Your task to perform on an android device: open app "Firefox Browser" Image 0: 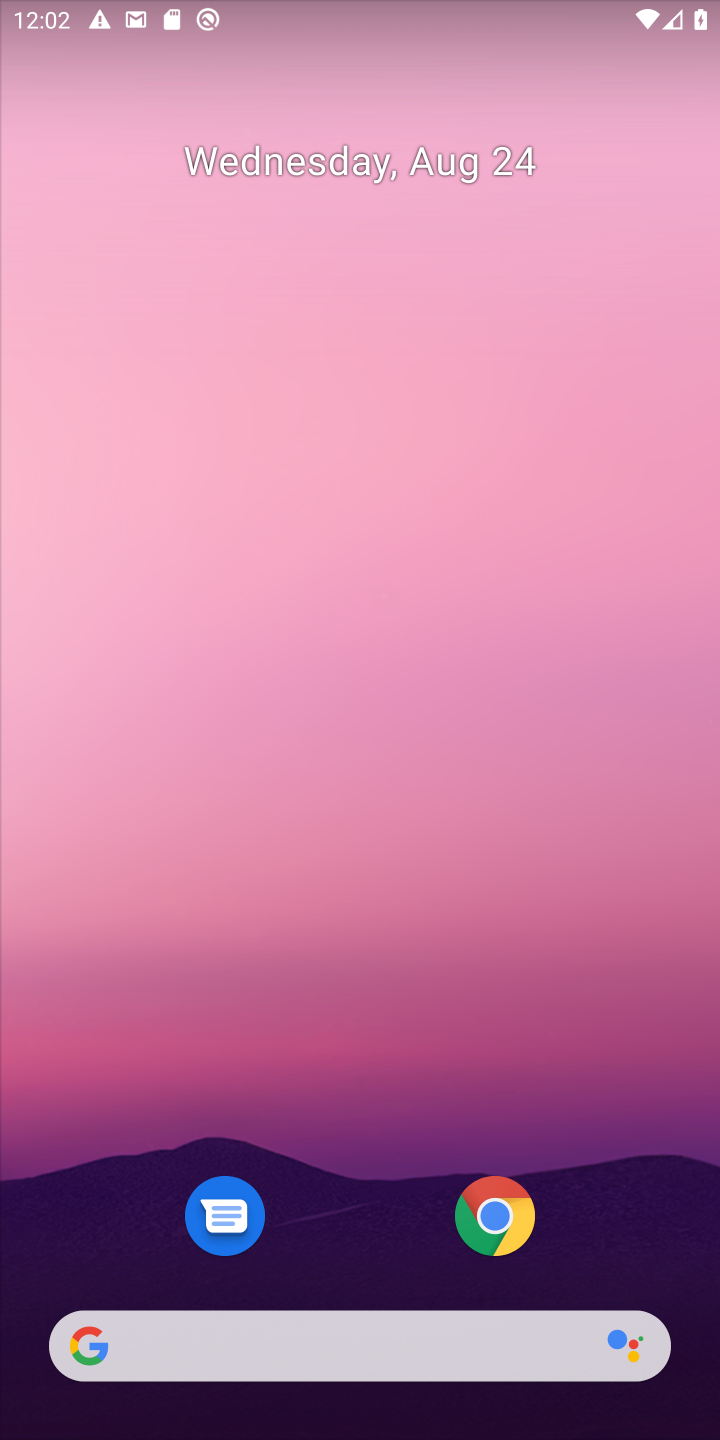
Step 0: drag from (353, 1323) to (389, 114)
Your task to perform on an android device: open app "Firefox Browser" Image 1: 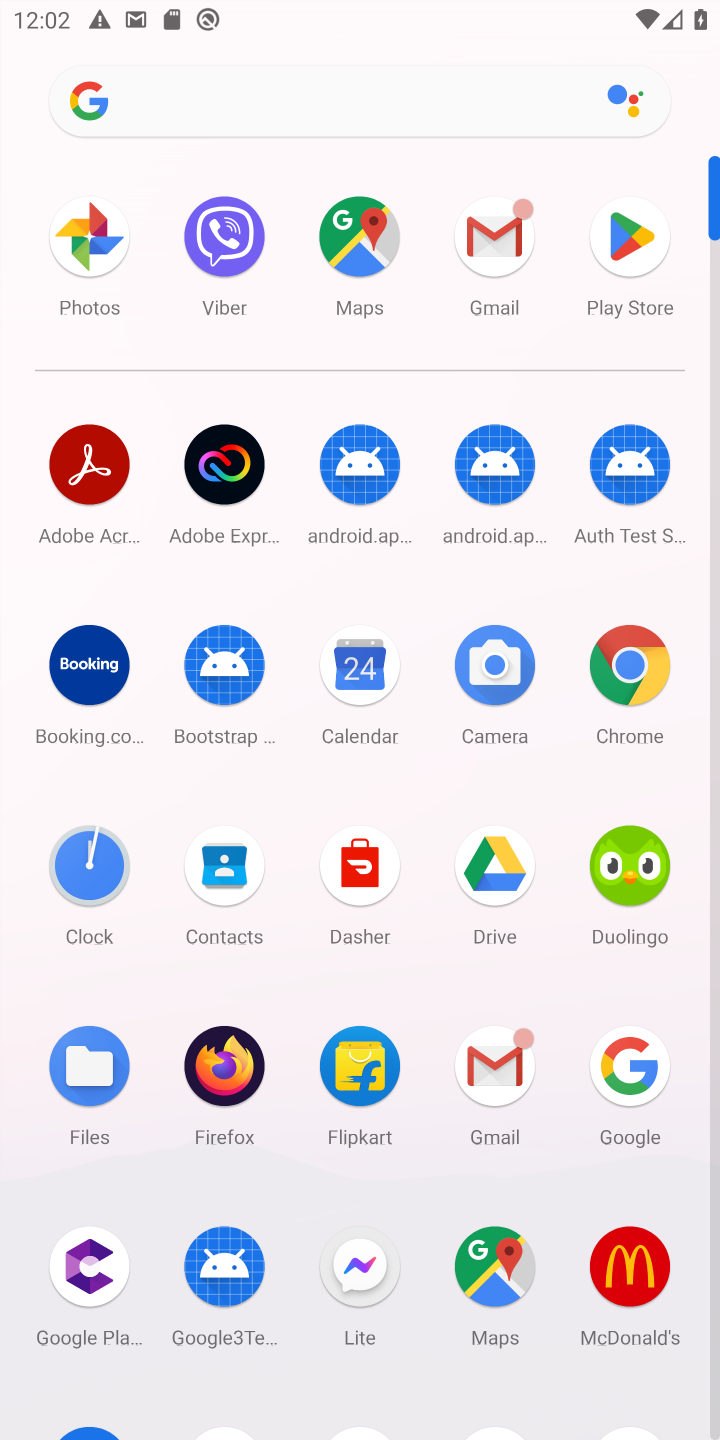
Step 1: click (640, 243)
Your task to perform on an android device: open app "Firefox Browser" Image 2: 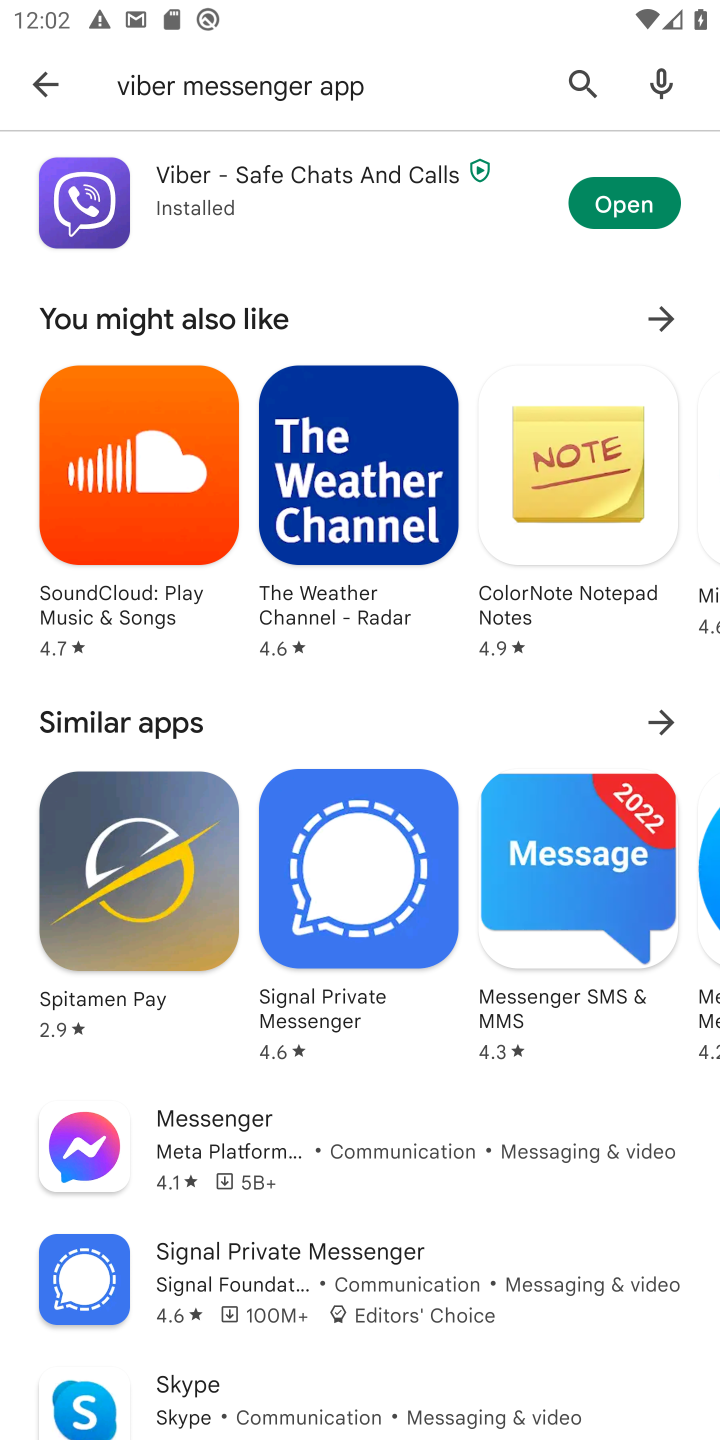
Step 2: press back button
Your task to perform on an android device: open app "Firefox Browser" Image 3: 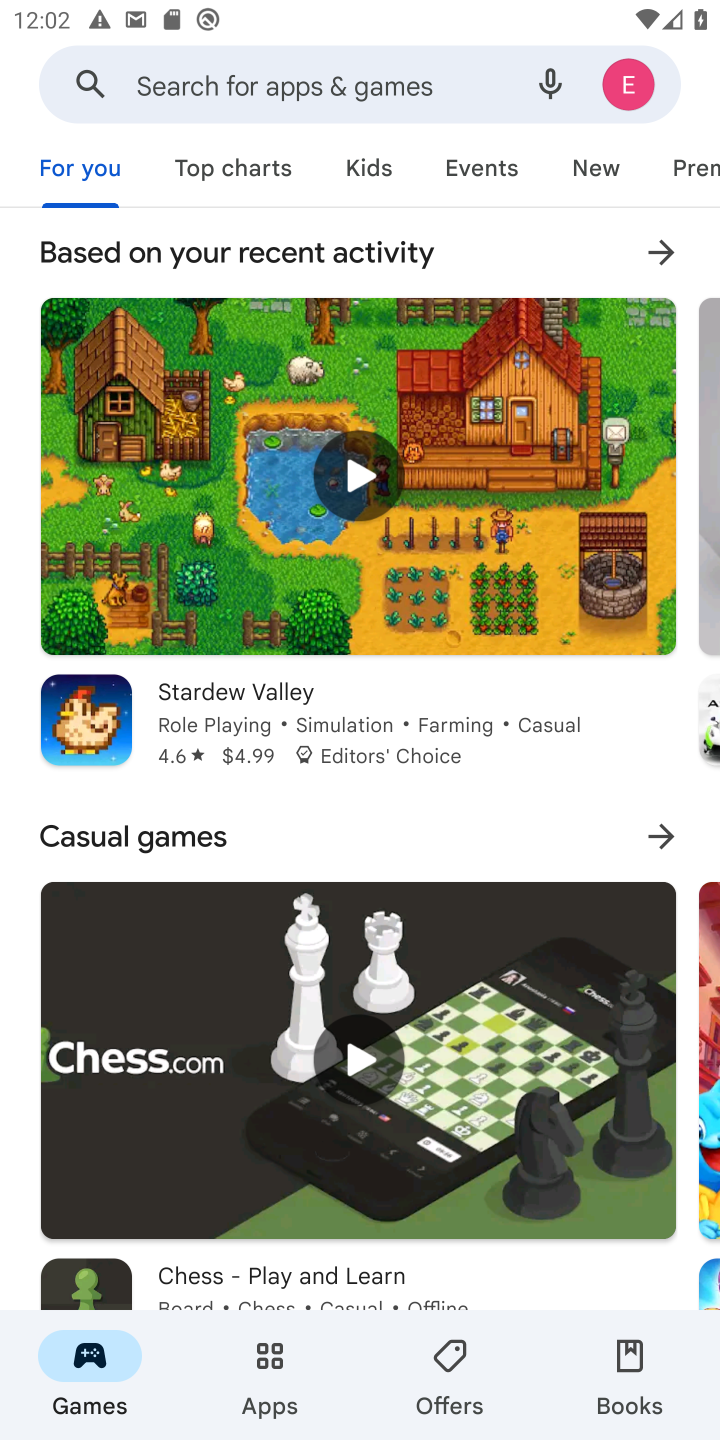
Step 3: click (269, 93)
Your task to perform on an android device: open app "Firefox Browser" Image 4: 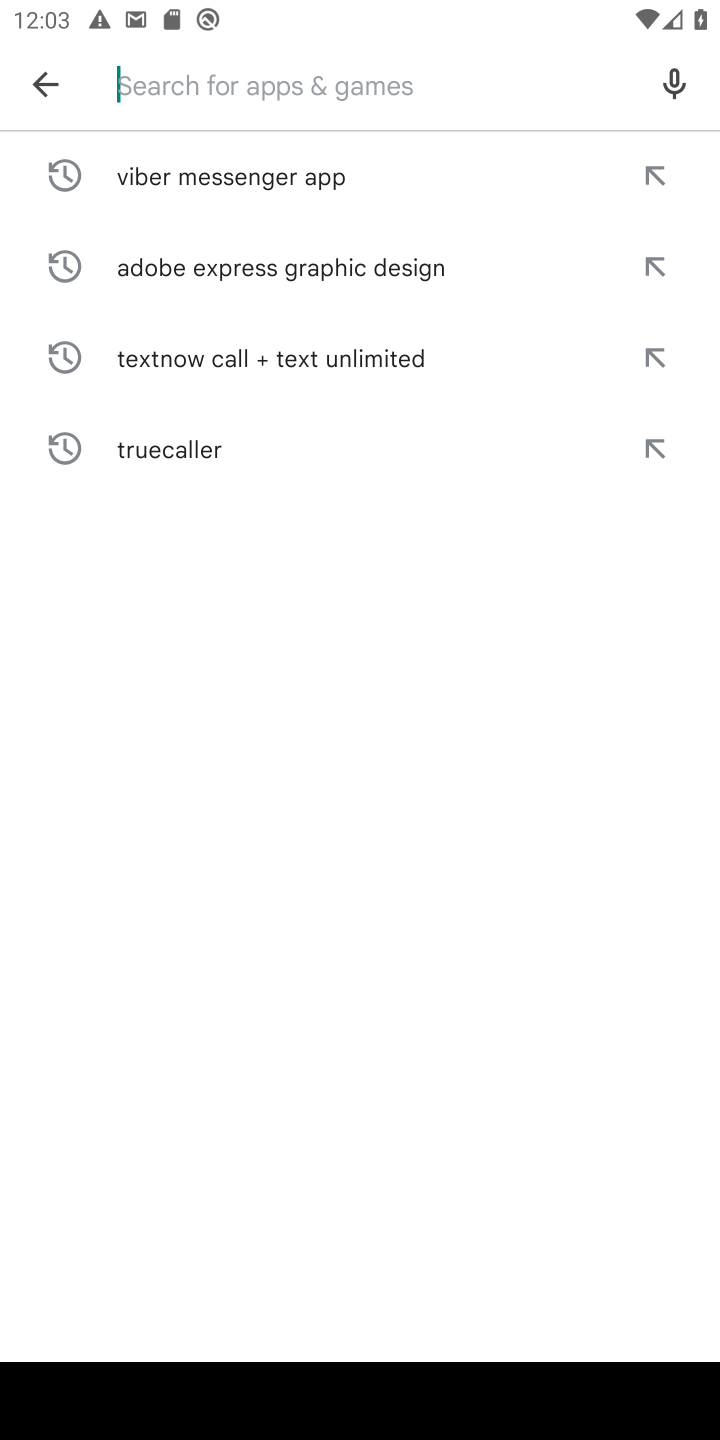
Step 4: type "Firefox Browser"
Your task to perform on an android device: open app "Firefox Browser" Image 5: 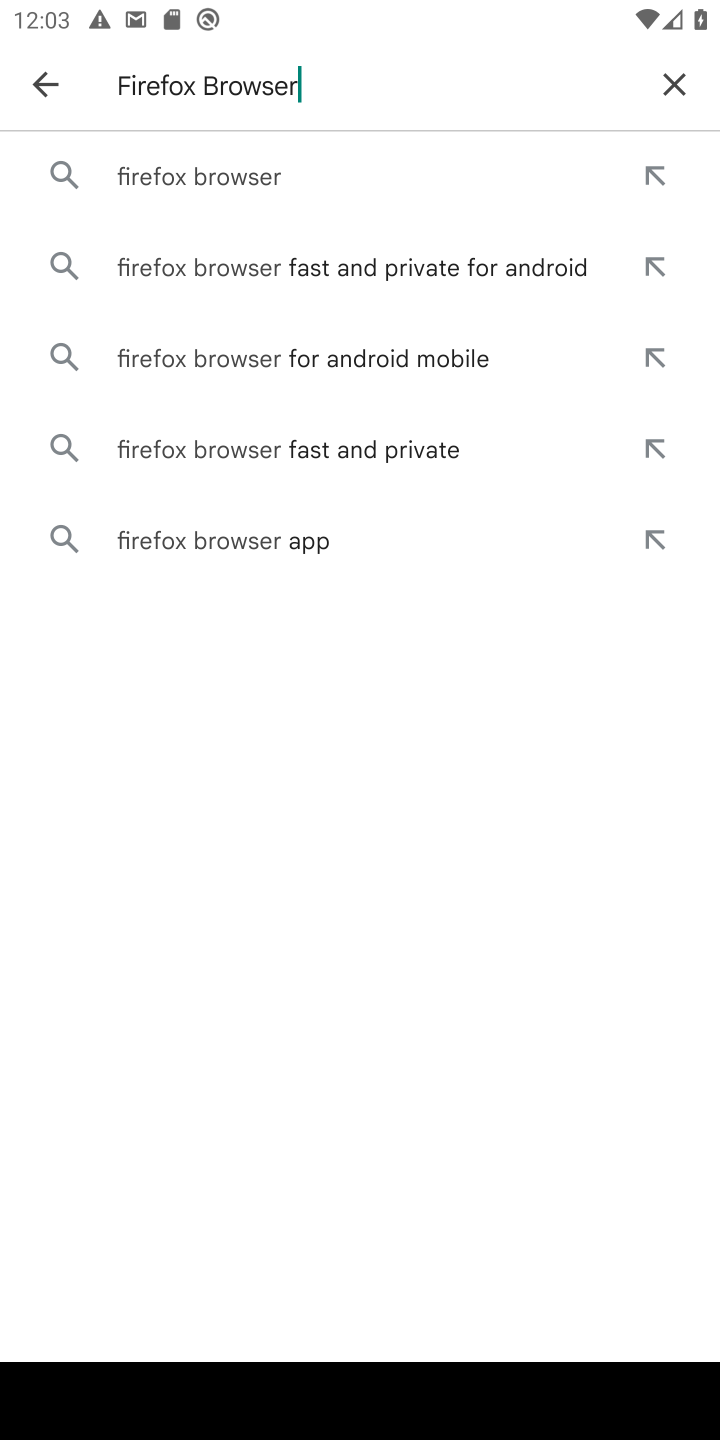
Step 5: click (262, 185)
Your task to perform on an android device: open app "Firefox Browser" Image 6: 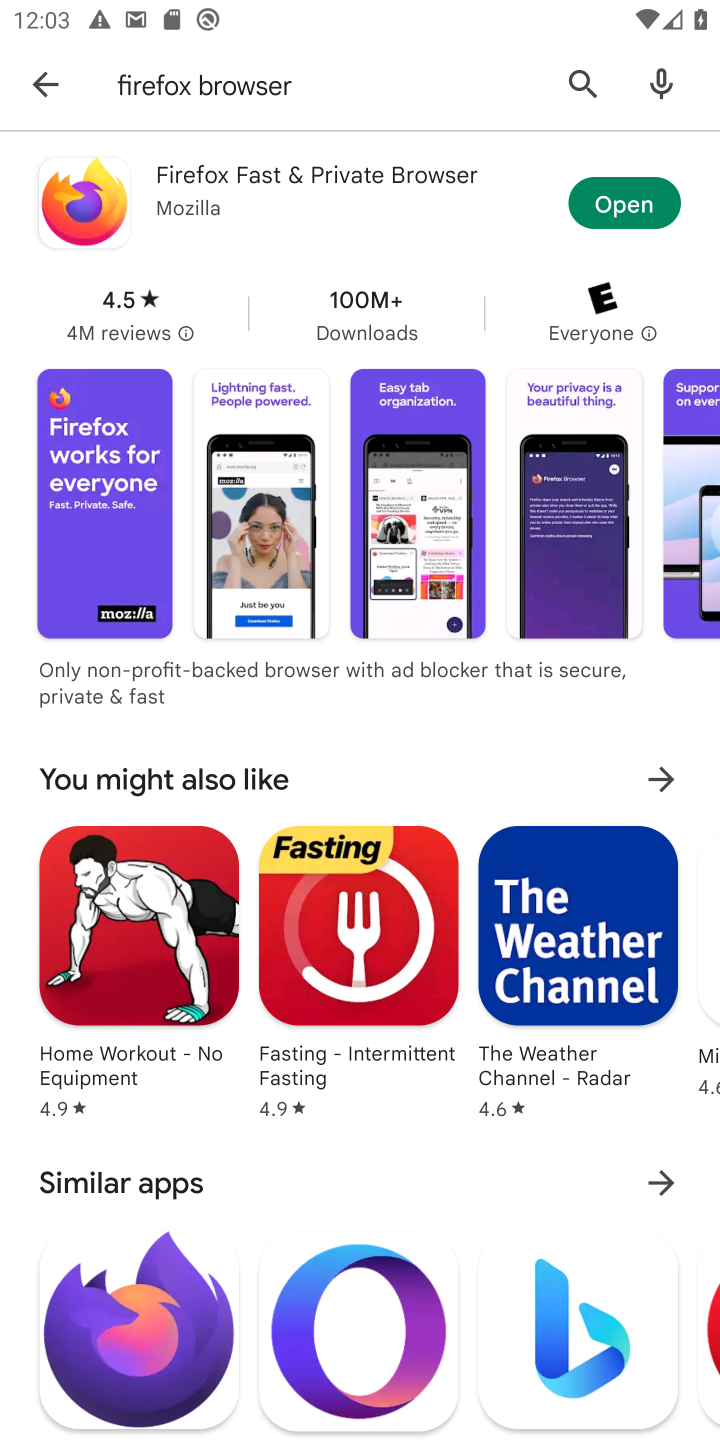
Step 6: click (614, 211)
Your task to perform on an android device: open app "Firefox Browser" Image 7: 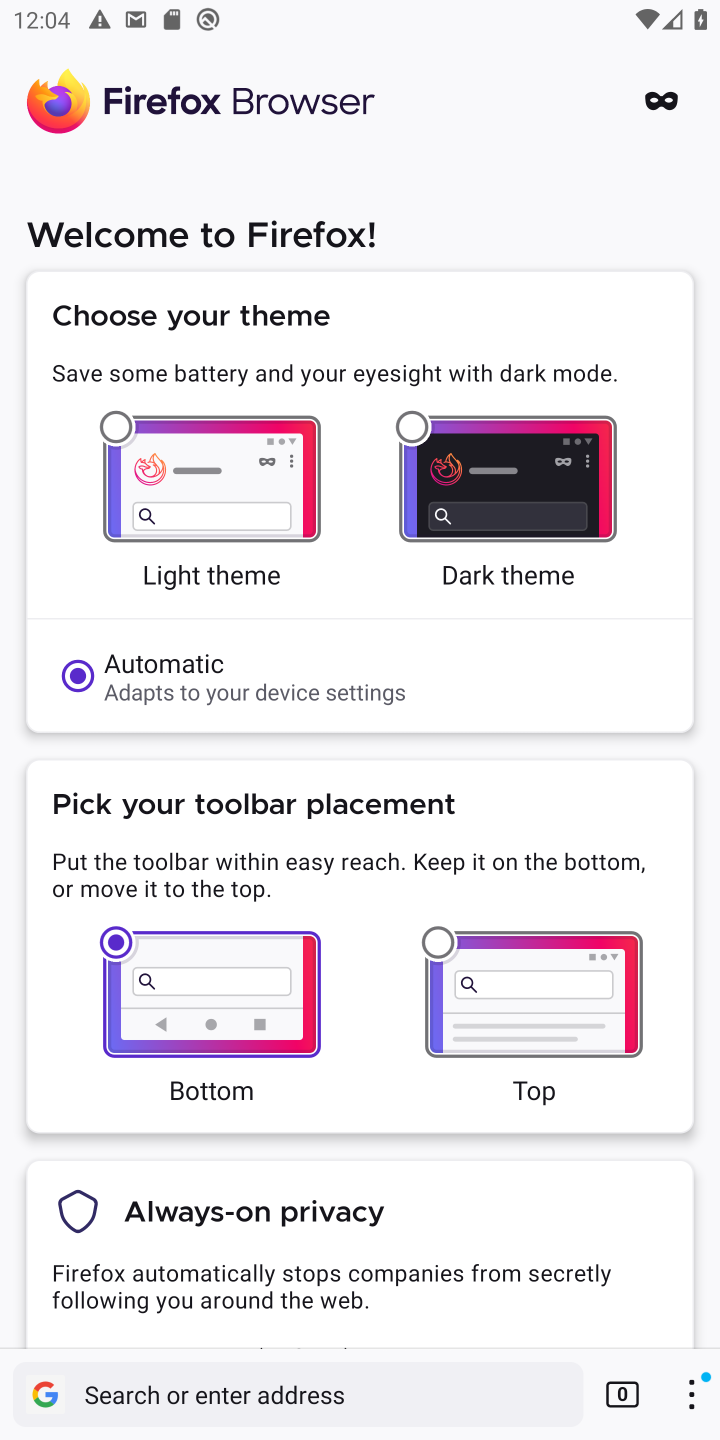
Step 7: task complete